Your task to perform on an android device: Go to Google Image 0: 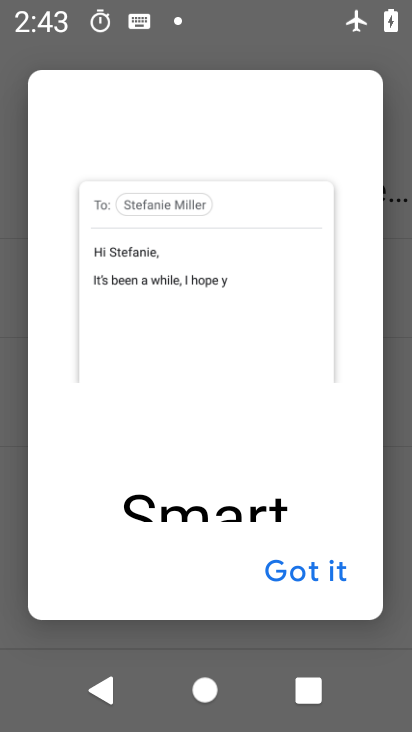
Step 0: press home button
Your task to perform on an android device: Go to Google Image 1: 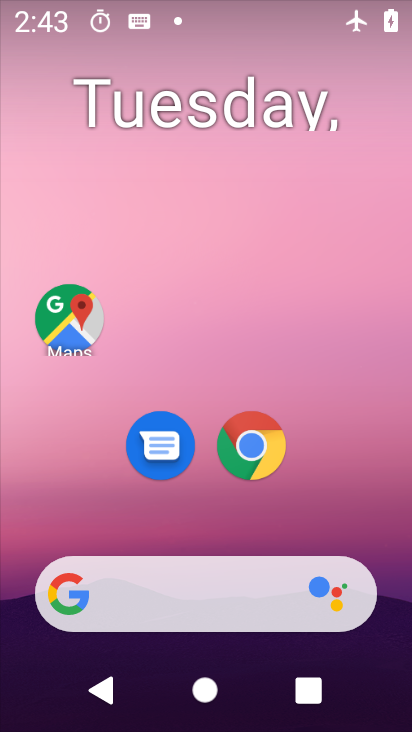
Step 1: drag from (397, 516) to (174, 179)
Your task to perform on an android device: Go to Google Image 2: 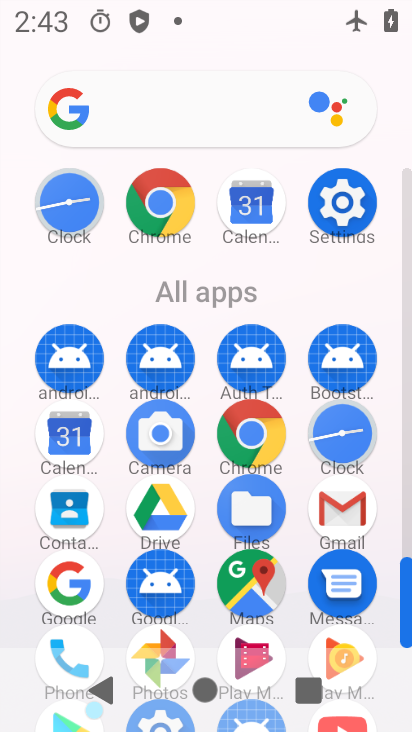
Step 2: click (74, 595)
Your task to perform on an android device: Go to Google Image 3: 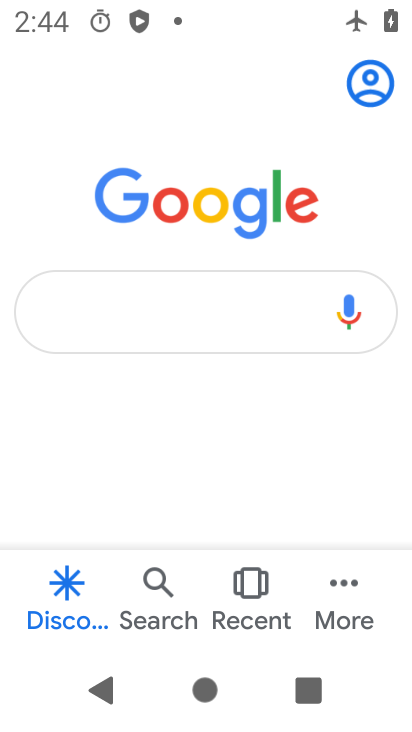
Step 3: task complete